Your task to perform on an android device: Search for Italian restaurants on Maps Image 0: 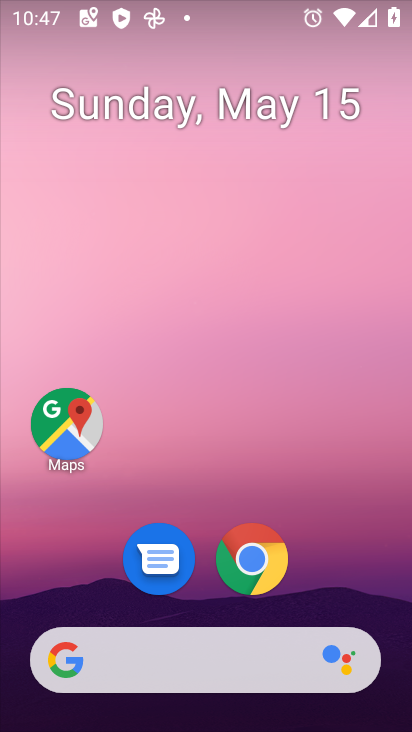
Step 0: drag from (317, 577) to (298, 20)
Your task to perform on an android device: Search for Italian restaurants on Maps Image 1: 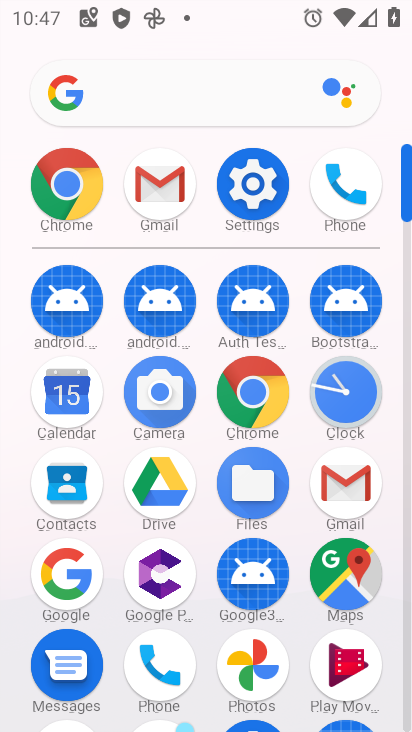
Step 1: click (340, 567)
Your task to perform on an android device: Search for Italian restaurants on Maps Image 2: 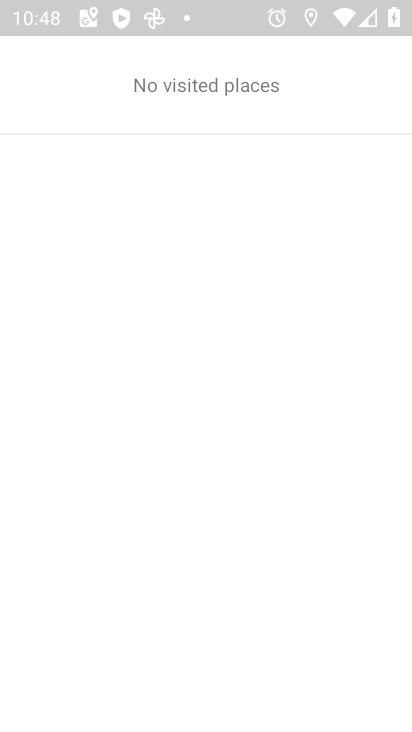
Step 2: press home button
Your task to perform on an android device: Search for Italian restaurants on Maps Image 3: 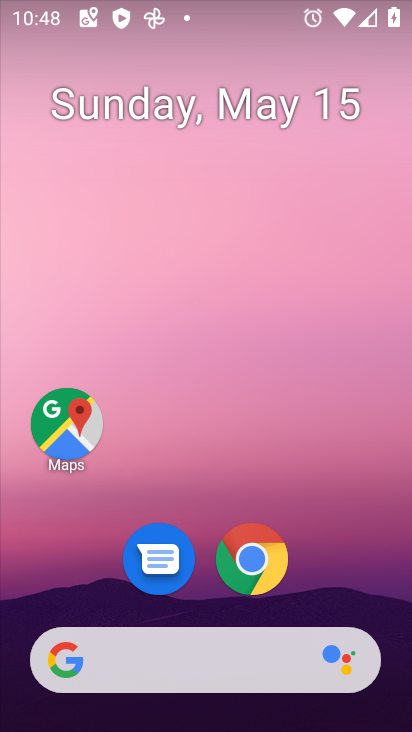
Step 3: click (77, 454)
Your task to perform on an android device: Search for Italian restaurants on Maps Image 4: 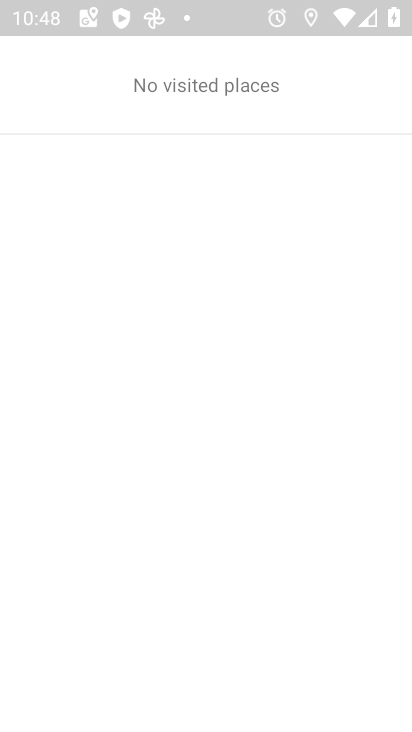
Step 4: press back button
Your task to perform on an android device: Search for Italian restaurants on Maps Image 5: 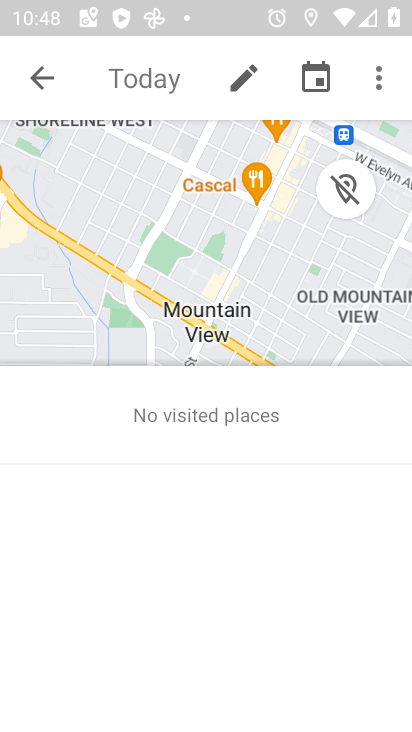
Step 5: click (34, 70)
Your task to perform on an android device: Search for Italian restaurants on Maps Image 6: 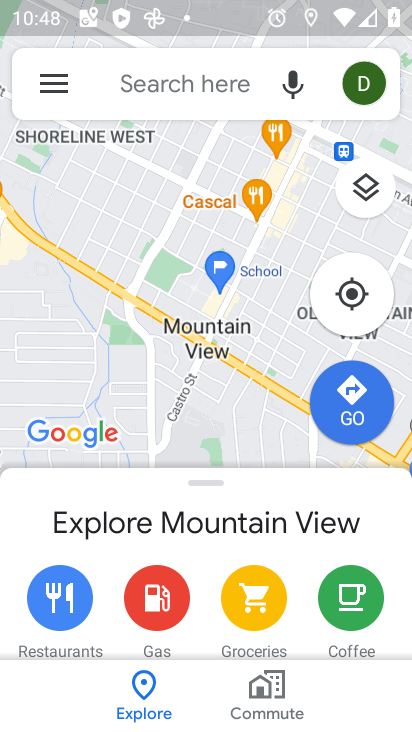
Step 6: click (152, 80)
Your task to perform on an android device: Search for Italian restaurants on Maps Image 7: 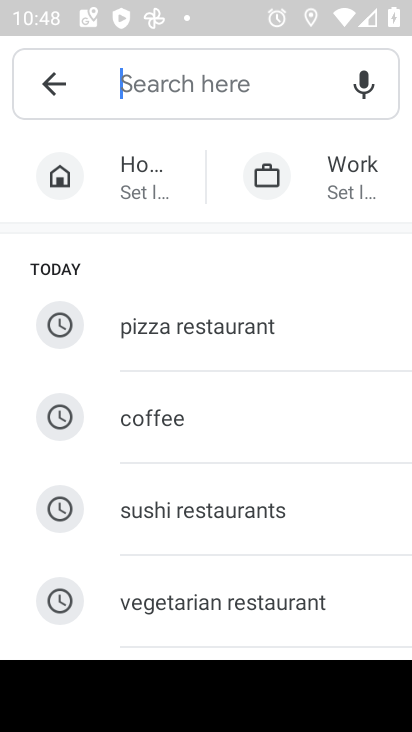
Step 7: drag from (190, 516) to (232, 302)
Your task to perform on an android device: Search for Italian restaurants on Maps Image 8: 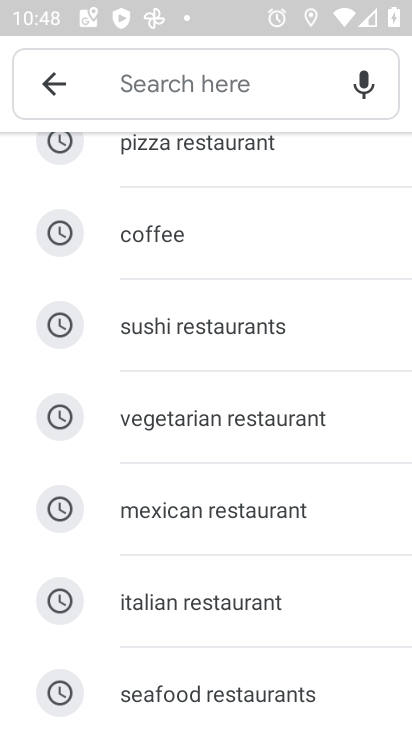
Step 8: click (210, 586)
Your task to perform on an android device: Search for Italian restaurants on Maps Image 9: 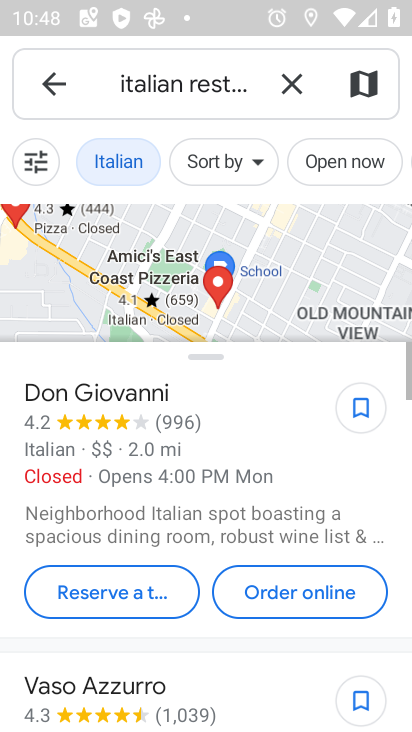
Step 9: task complete